Your task to perform on an android device: Go to settings Image 0: 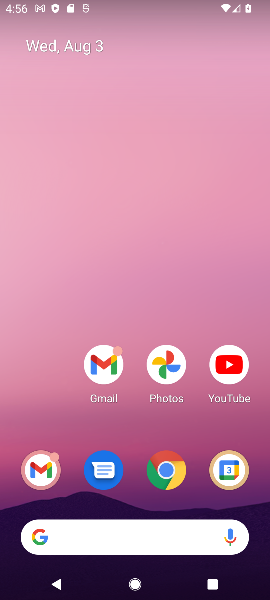
Step 0: drag from (64, 418) to (56, 89)
Your task to perform on an android device: Go to settings Image 1: 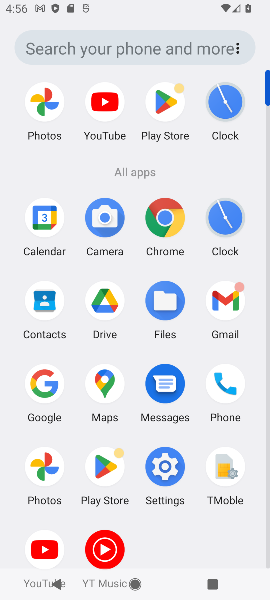
Step 1: click (163, 465)
Your task to perform on an android device: Go to settings Image 2: 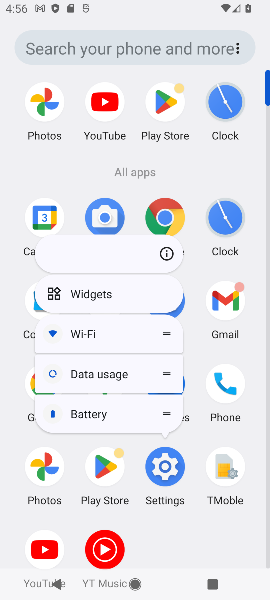
Step 2: click (163, 465)
Your task to perform on an android device: Go to settings Image 3: 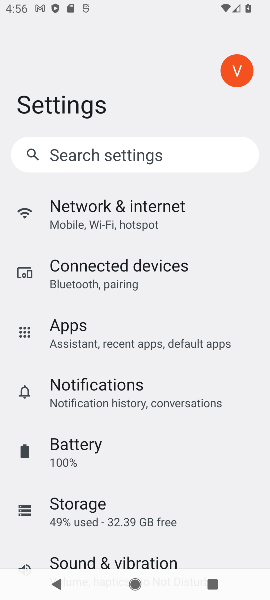
Step 3: task complete